Your task to perform on an android device: toggle notification dots Image 0: 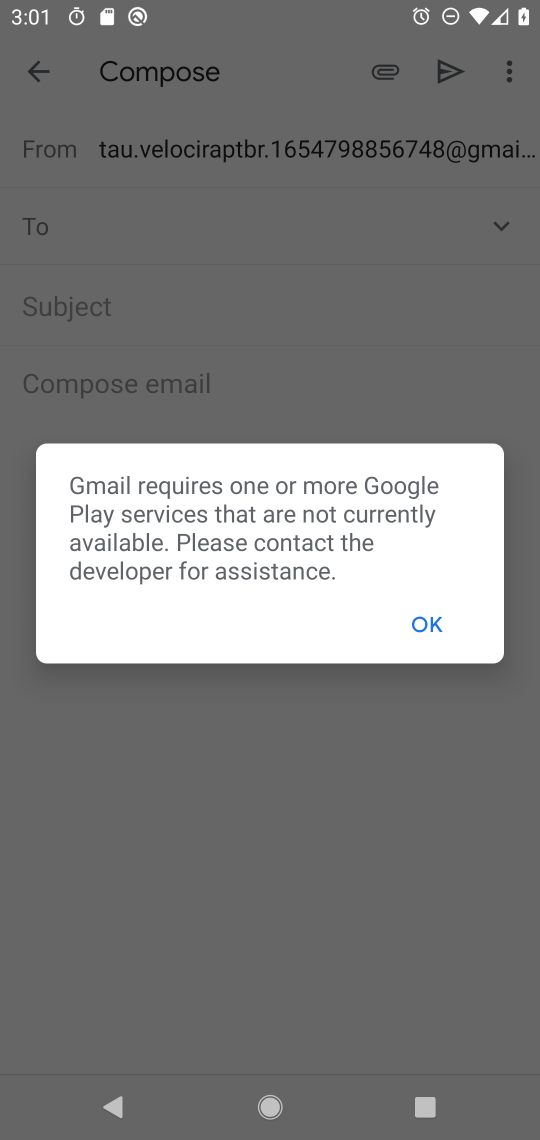
Step 0: press home button
Your task to perform on an android device: toggle notification dots Image 1: 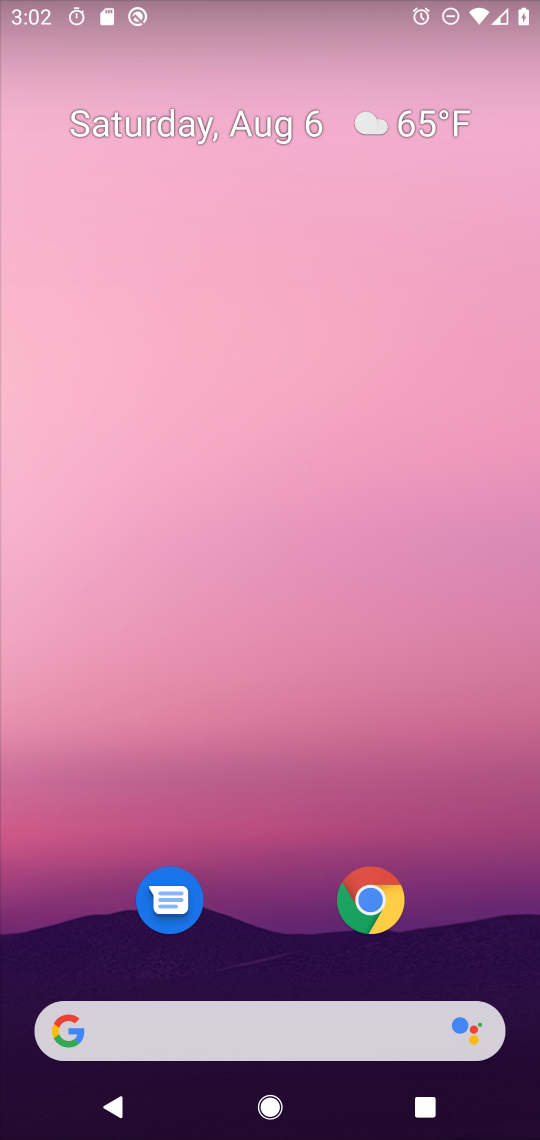
Step 1: drag from (266, 991) to (245, 209)
Your task to perform on an android device: toggle notification dots Image 2: 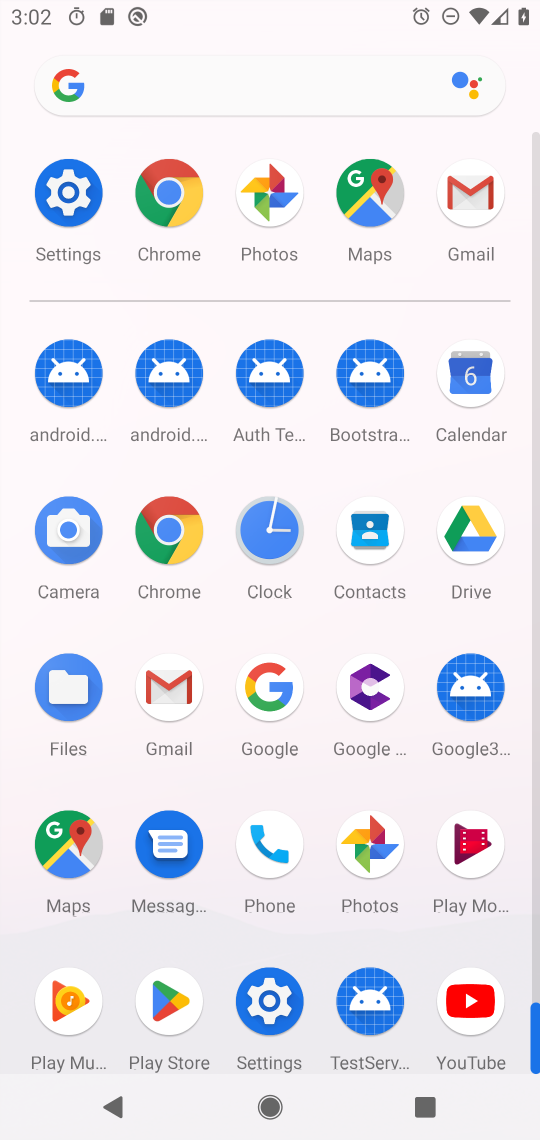
Step 2: click (51, 180)
Your task to perform on an android device: toggle notification dots Image 3: 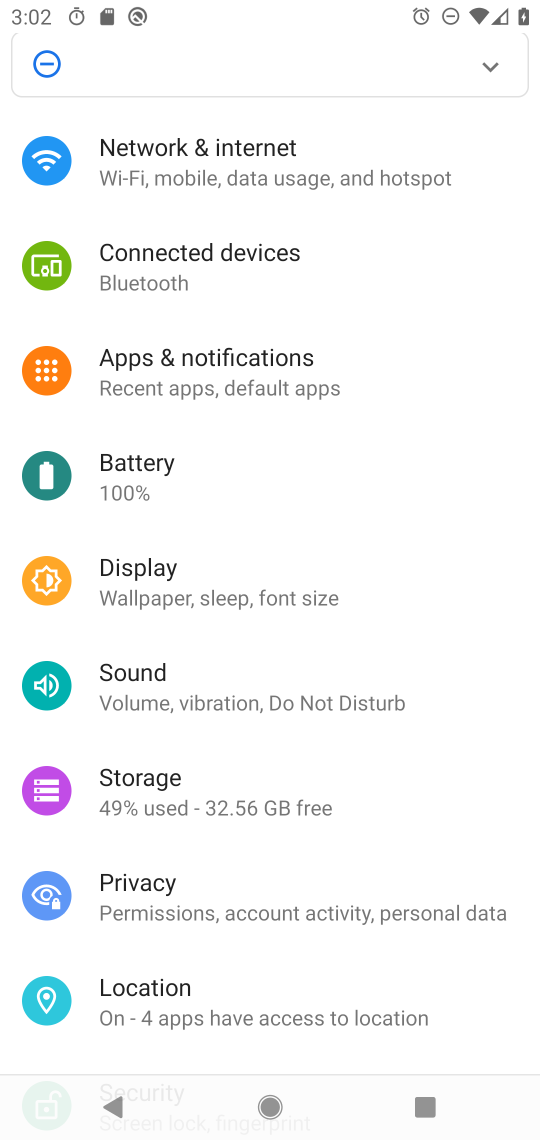
Step 3: click (204, 359)
Your task to perform on an android device: toggle notification dots Image 4: 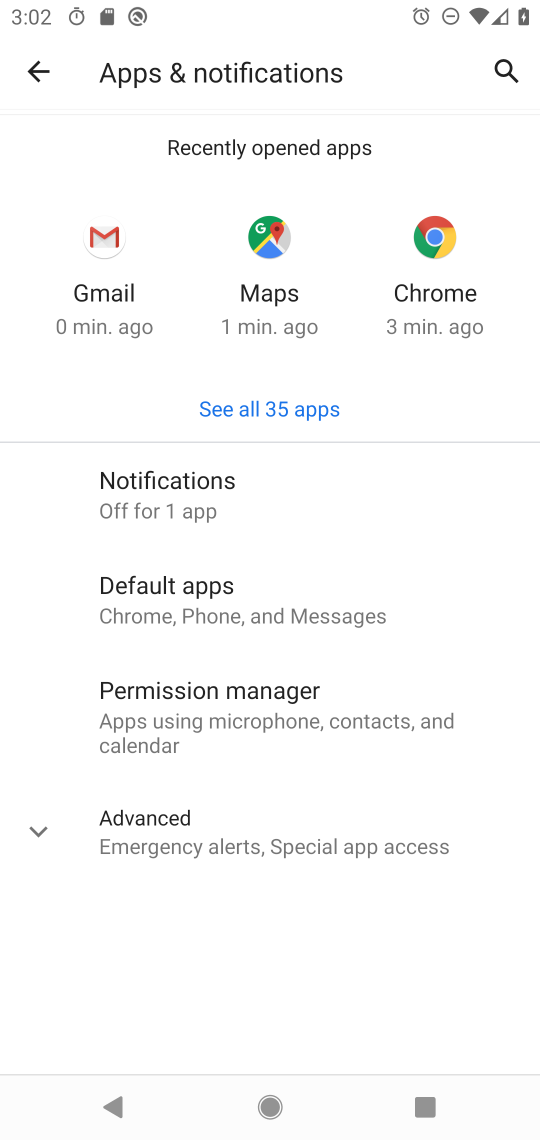
Step 4: click (175, 489)
Your task to perform on an android device: toggle notification dots Image 5: 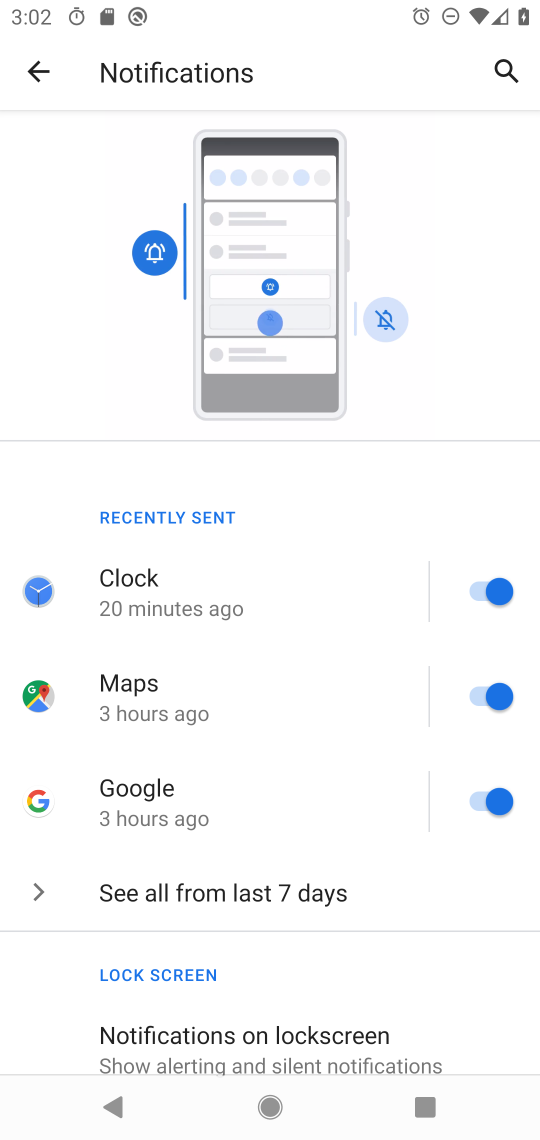
Step 5: drag from (220, 1042) to (266, 464)
Your task to perform on an android device: toggle notification dots Image 6: 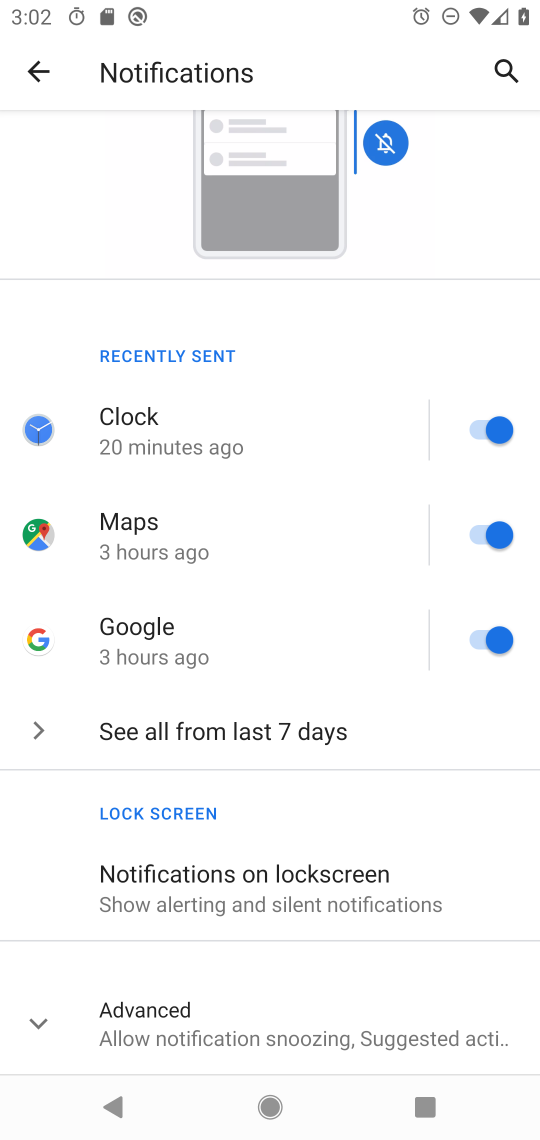
Step 6: click (196, 1029)
Your task to perform on an android device: toggle notification dots Image 7: 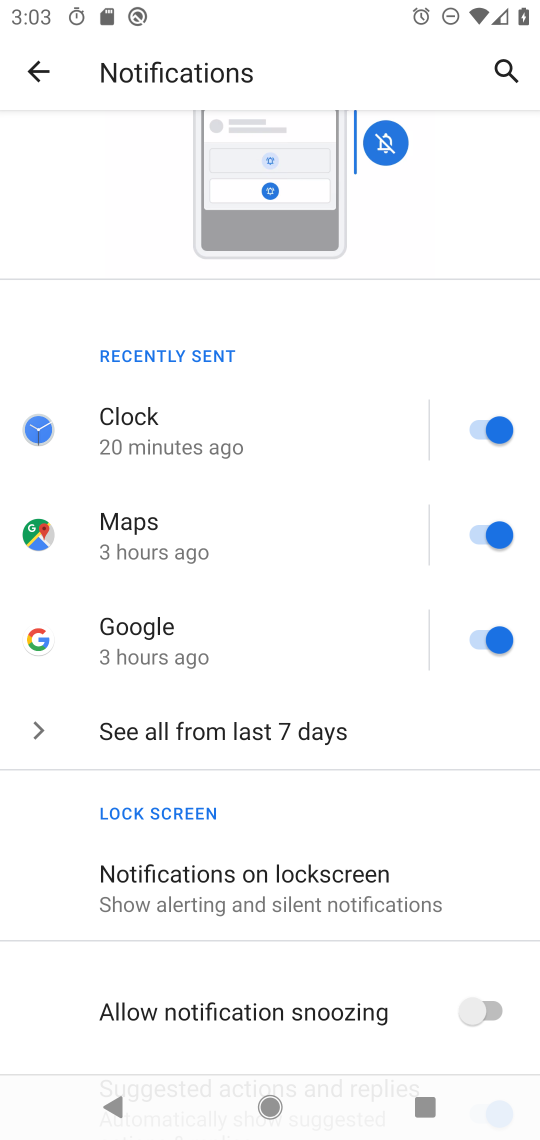
Step 7: drag from (329, 965) to (332, 436)
Your task to perform on an android device: toggle notification dots Image 8: 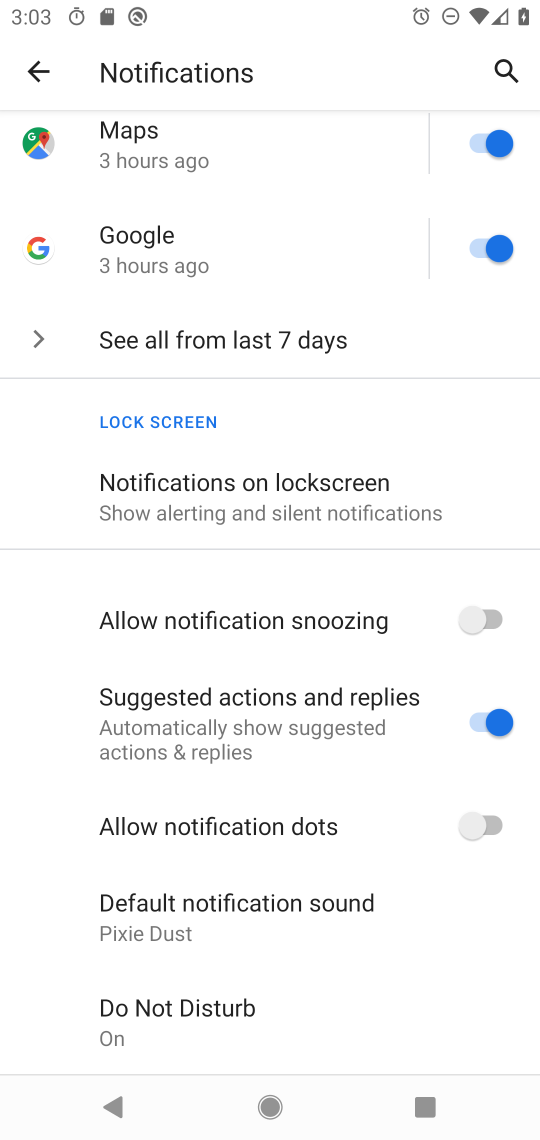
Step 8: click (484, 824)
Your task to perform on an android device: toggle notification dots Image 9: 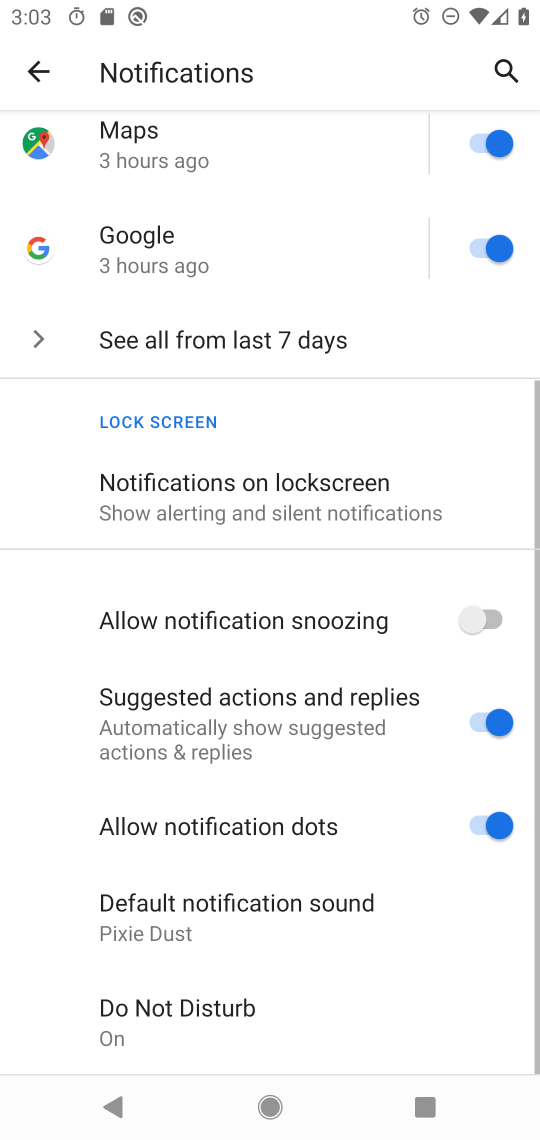
Step 9: task complete